Your task to perform on an android device: toggle javascript in the chrome app Image 0: 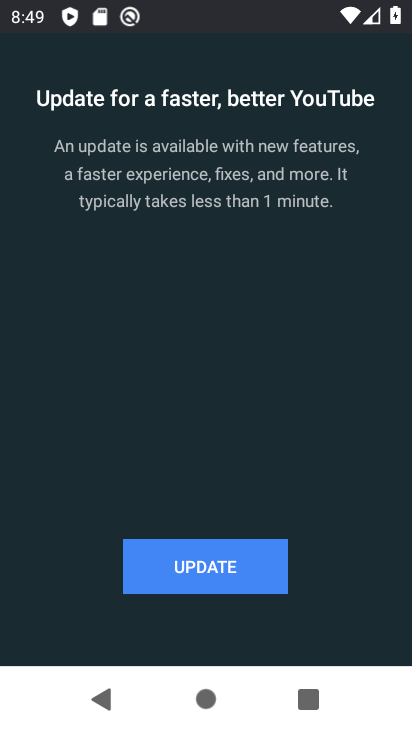
Step 0: press back button
Your task to perform on an android device: toggle javascript in the chrome app Image 1: 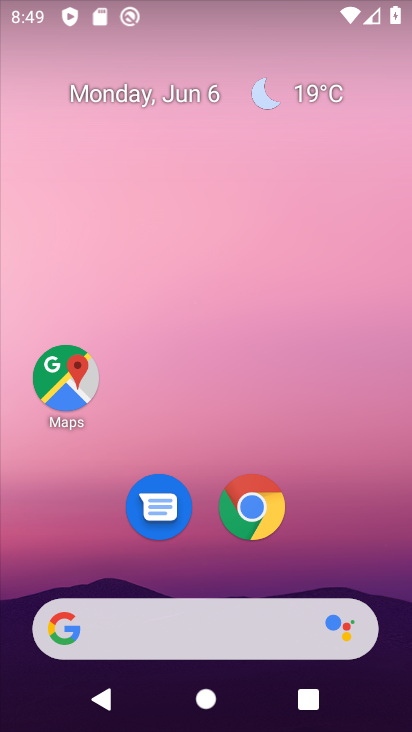
Step 1: click (261, 495)
Your task to perform on an android device: toggle javascript in the chrome app Image 2: 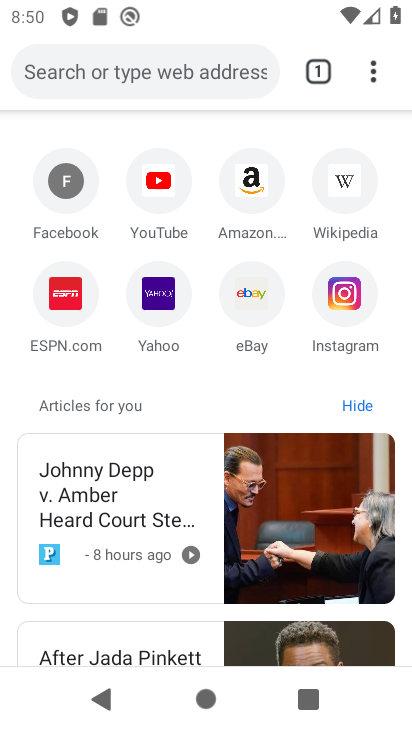
Step 2: click (385, 66)
Your task to perform on an android device: toggle javascript in the chrome app Image 3: 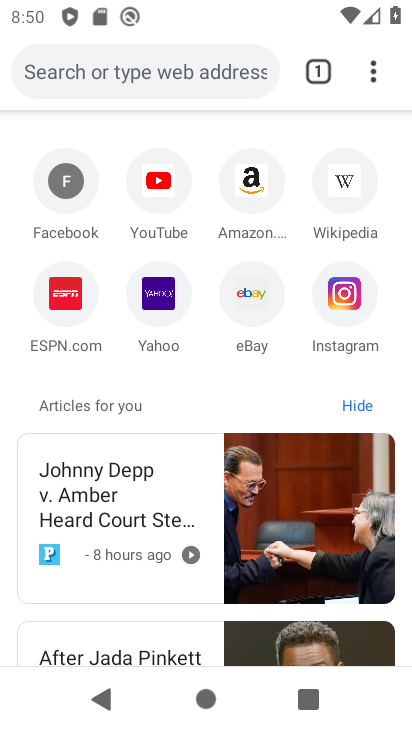
Step 3: click (383, 63)
Your task to perform on an android device: toggle javascript in the chrome app Image 4: 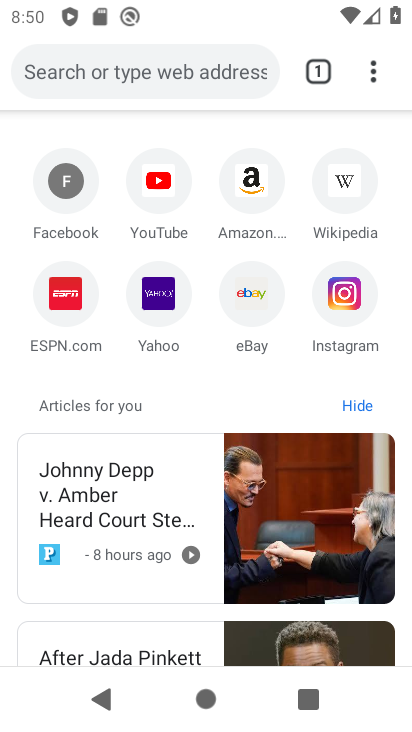
Step 4: click (368, 79)
Your task to perform on an android device: toggle javascript in the chrome app Image 5: 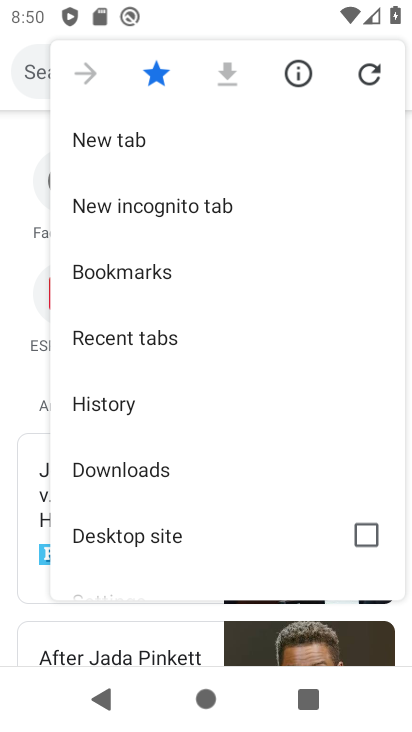
Step 5: drag from (188, 485) to (214, 259)
Your task to perform on an android device: toggle javascript in the chrome app Image 6: 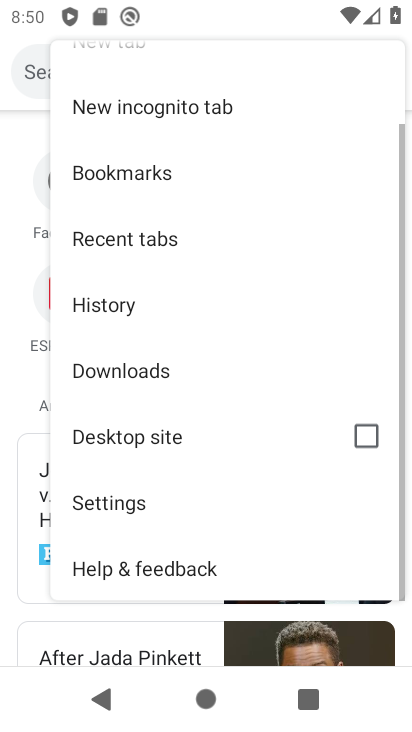
Step 6: click (155, 494)
Your task to perform on an android device: toggle javascript in the chrome app Image 7: 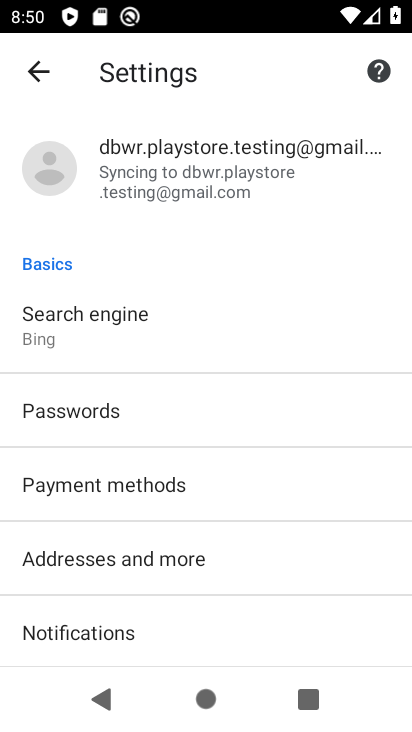
Step 7: drag from (183, 573) to (195, 343)
Your task to perform on an android device: toggle javascript in the chrome app Image 8: 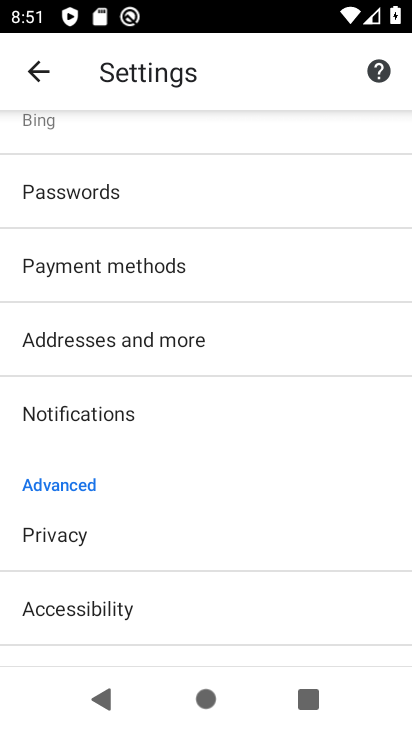
Step 8: drag from (127, 555) to (165, 292)
Your task to perform on an android device: toggle javascript in the chrome app Image 9: 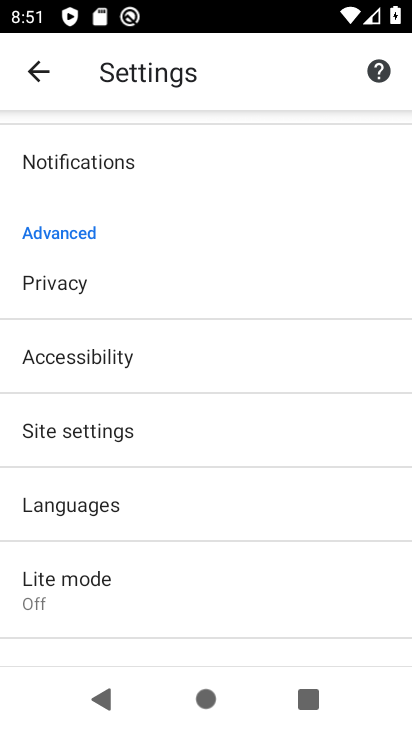
Step 9: click (154, 411)
Your task to perform on an android device: toggle javascript in the chrome app Image 10: 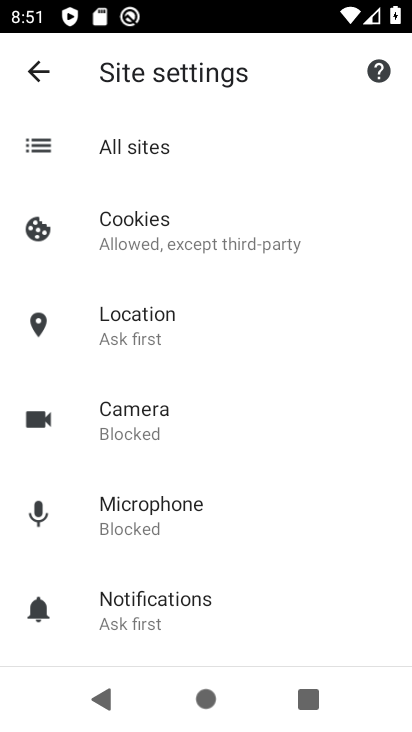
Step 10: drag from (165, 608) to (211, 302)
Your task to perform on an android device: toggle javascript in the chrome app Image 11: 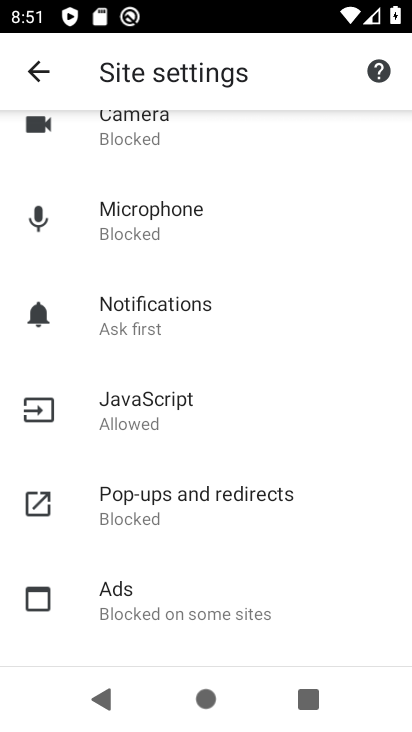
Step 11: click (147, 405)
Your task to perform on an android device: toggle javascript in the chrome app Image 12: 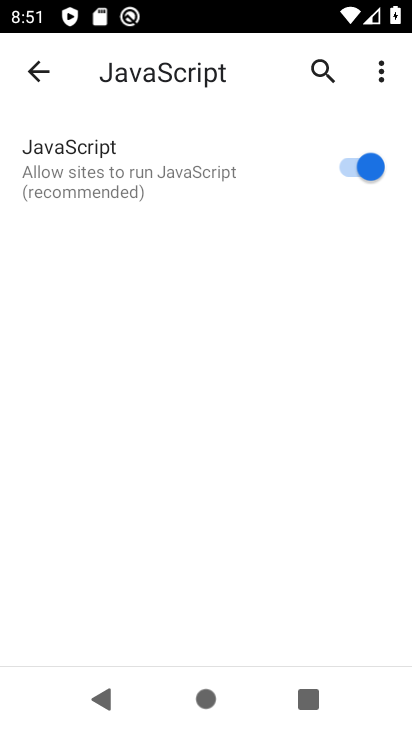
Step 12: click (342, 162)
Your task to perform on an android device: toggle javascript in the chrome app Image 13: 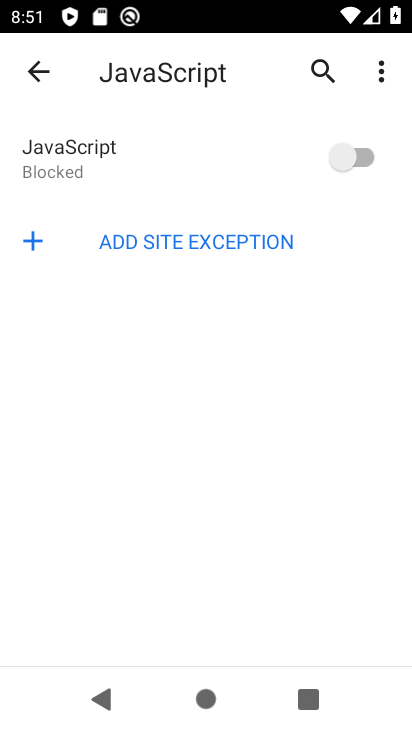
Step 13: task complete